Your task to perform on an android device: add a contact Image 0: 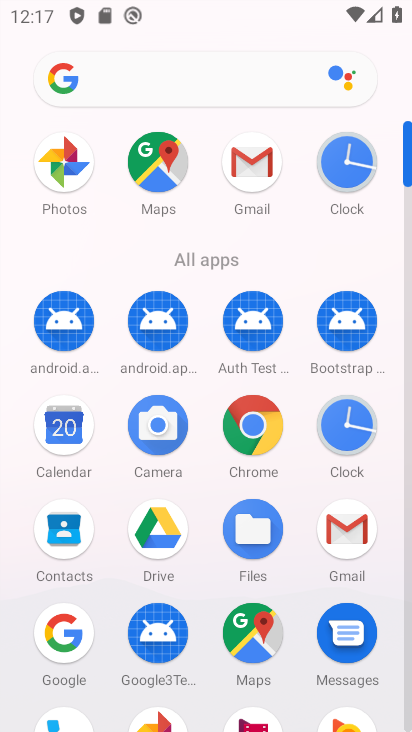
Step 0: click (66, 523)
Your task to perform on an android device: add a contact Image 1: 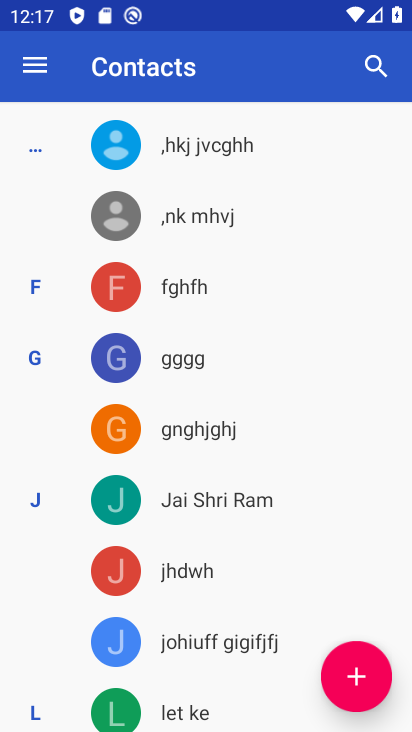
Step 1: drag from (250, 586) to (231, 153)
Your task to perform on an android device: add a contact Image 2: 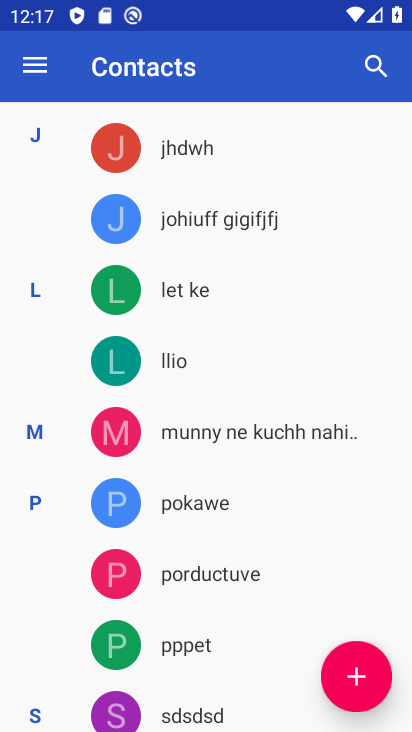
Step 2: drag from (226, 628) to (210, 252)
Your task to perform on an android device: add a contact Image 3: 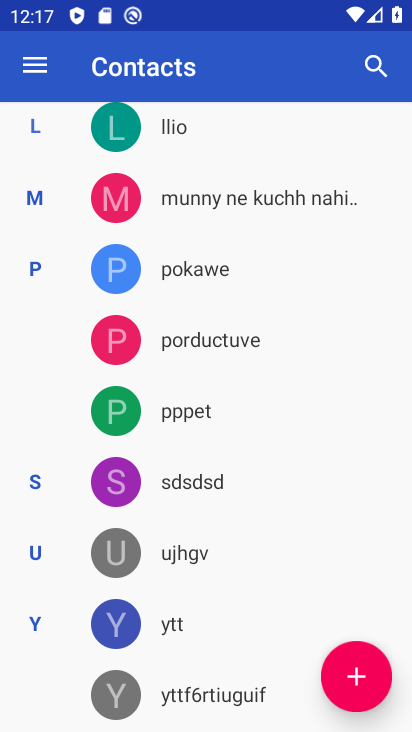
Step 3: drag from (191, 561) to (181, 435)
Your task to perform on an android device: add a contact Image 4: 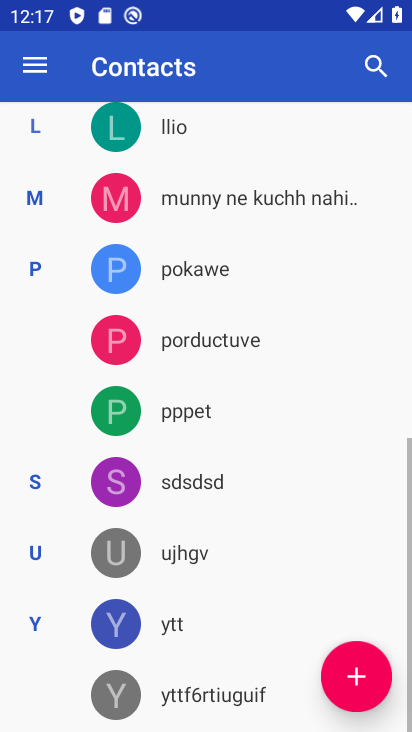
Step 4: click (345, 672)
Your task to perform on an android device: add a contact Image 5: 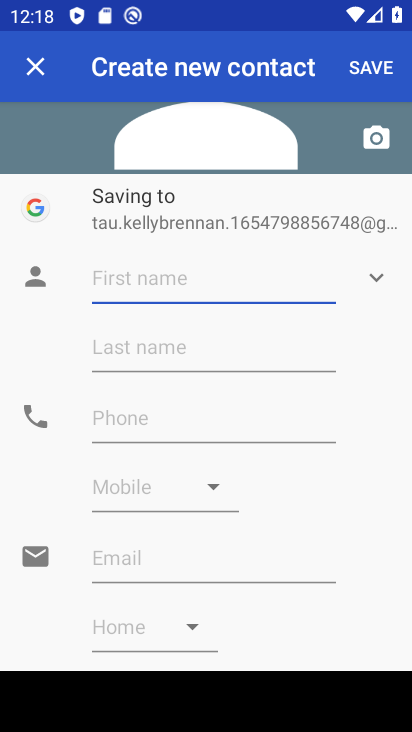
Step 5: type "Yadyapi "
Your task to perform on an android device: add a contact Image 6: 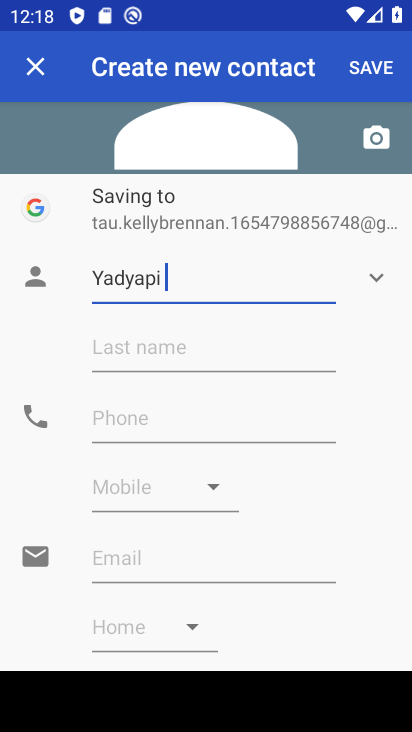
Step 6: click (172, 423)
Your task to perform on an android device: add a contact Image 7: 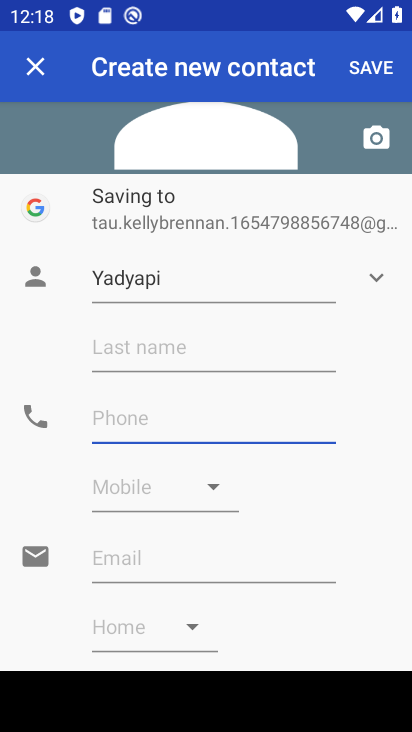
Step 7: type "999988776655"
Your task to perform on an android device: add a contact Image 8: 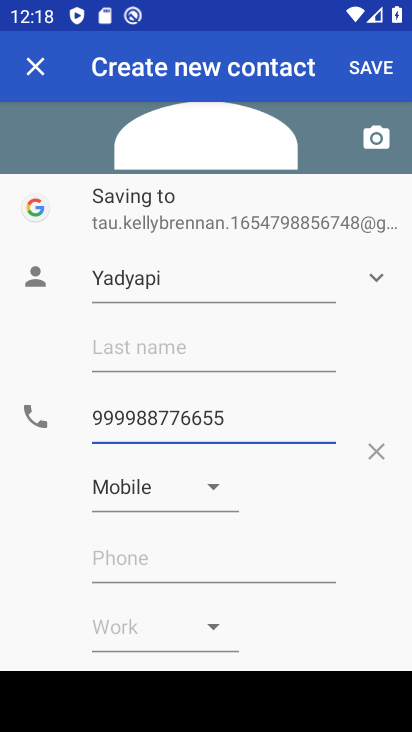
Step 8: click (371, 71)
Your task to perform on an android device: add a contact Image 9: 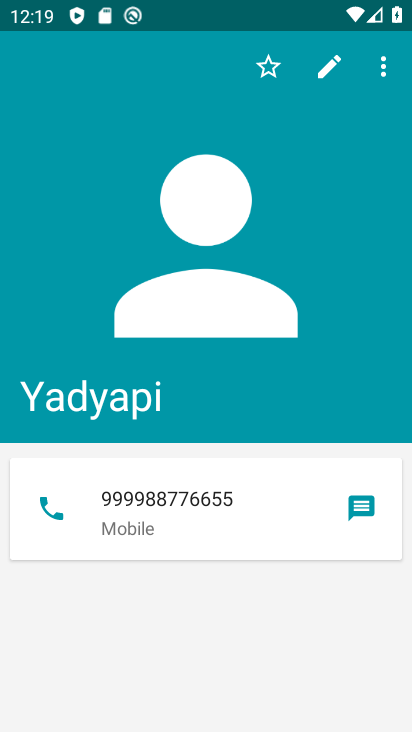
Step 9: task complete